Your task to perform on an android device: Open the map Image 0: 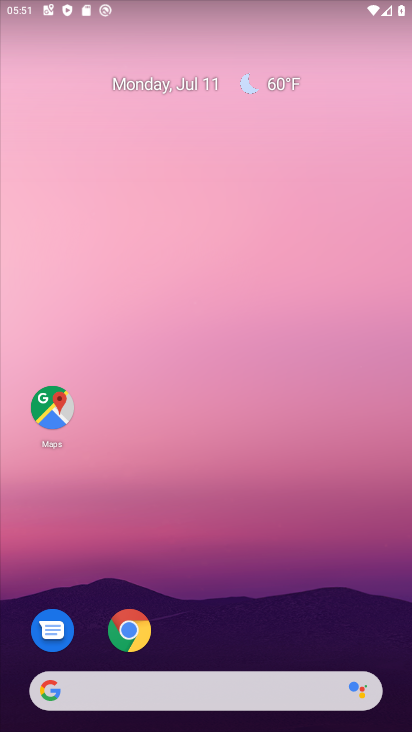
Step 0: click (49, 413)
Your task to perform on an android device: Open the map Image 1: 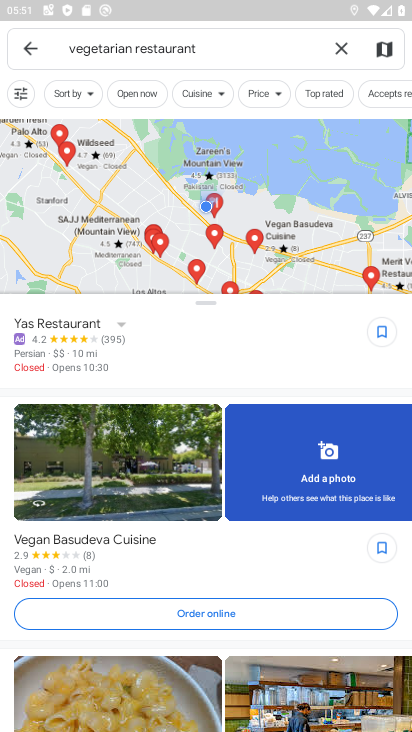
Step 1: task complete